Your task to perform on an android device: install app "DoorDash - Dasher" Image 0: 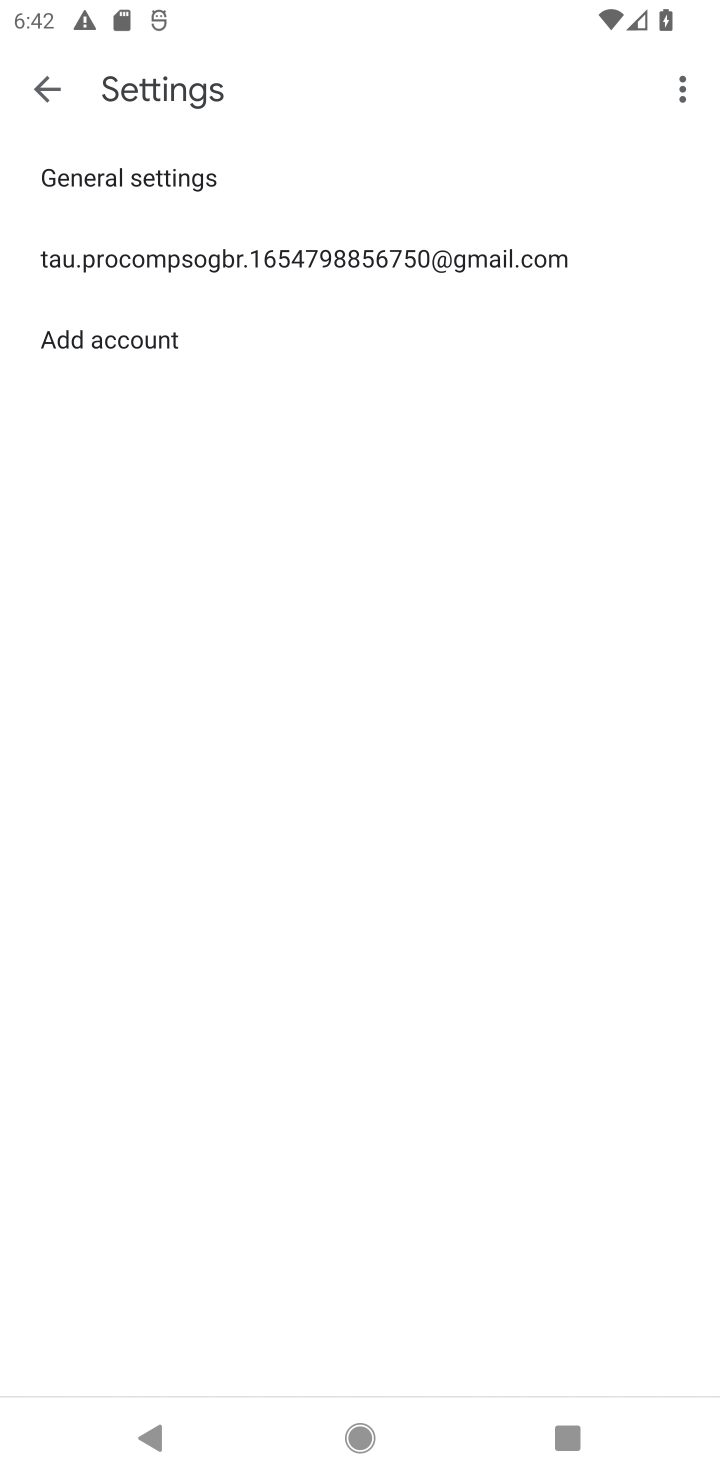
Step 0: press home button
Your task to perform on an android device: install app "DoorDash - Dasher" Image 1: 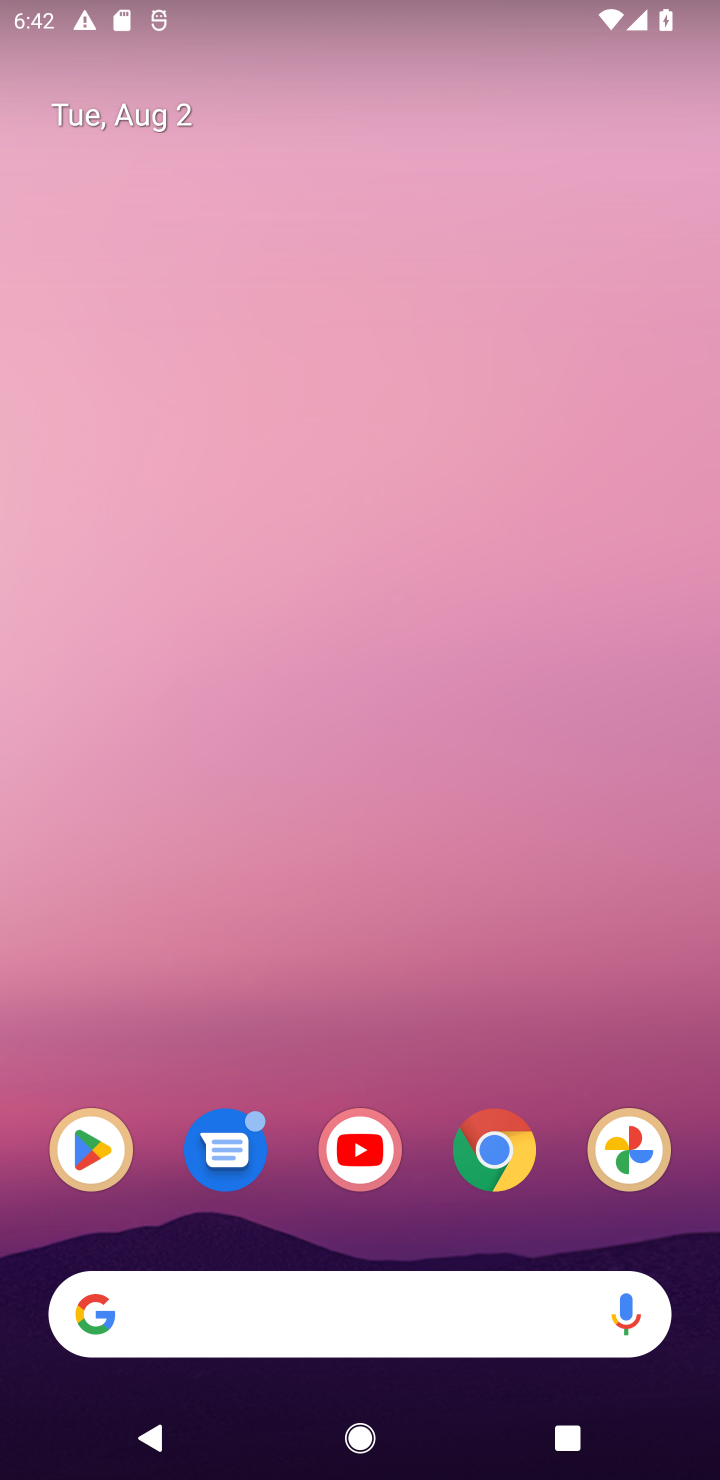
Step 1: click (76, 1174)
Your task to perform on an android device: install app "DoorDash - Dasher" Image 2: 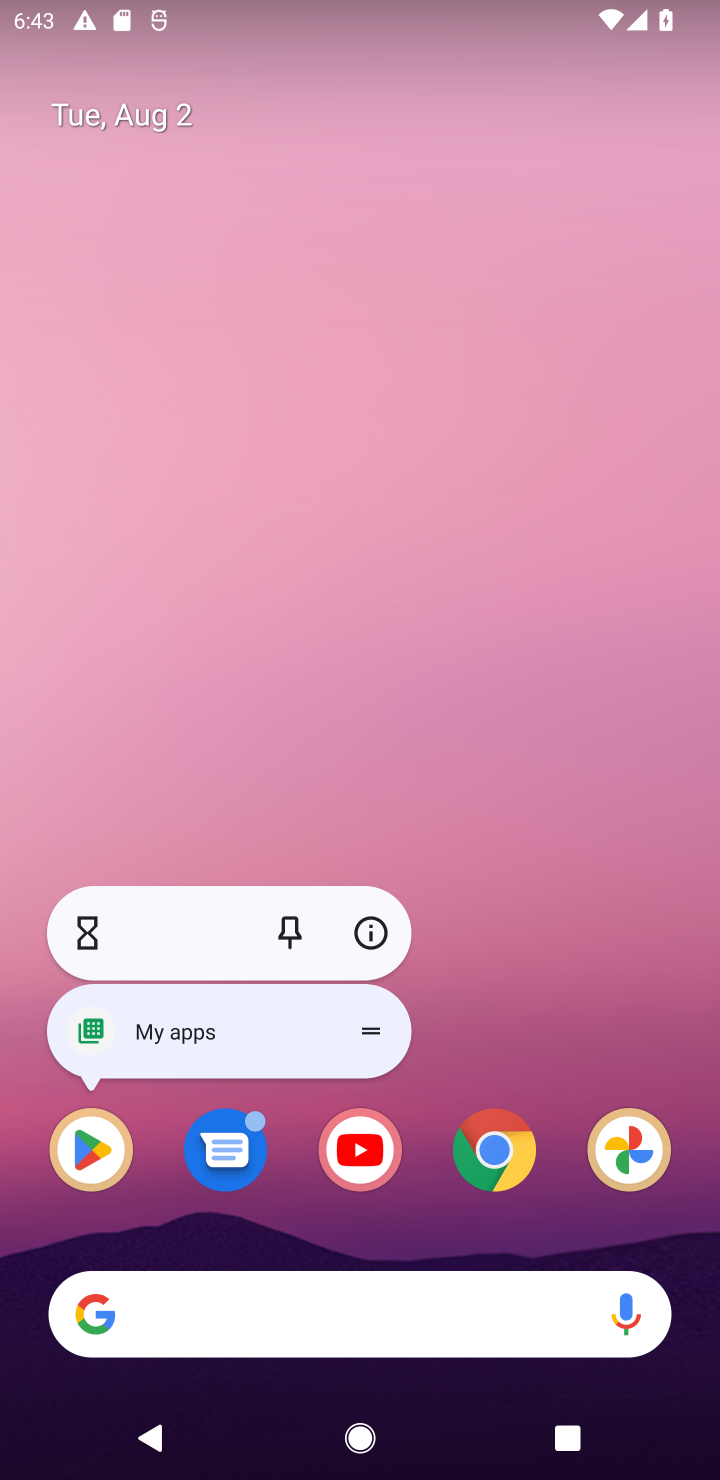
Step 2: click (76, 1174)
Your task to perform on an android device: install app "DoorDash - Dasher" Image 3: 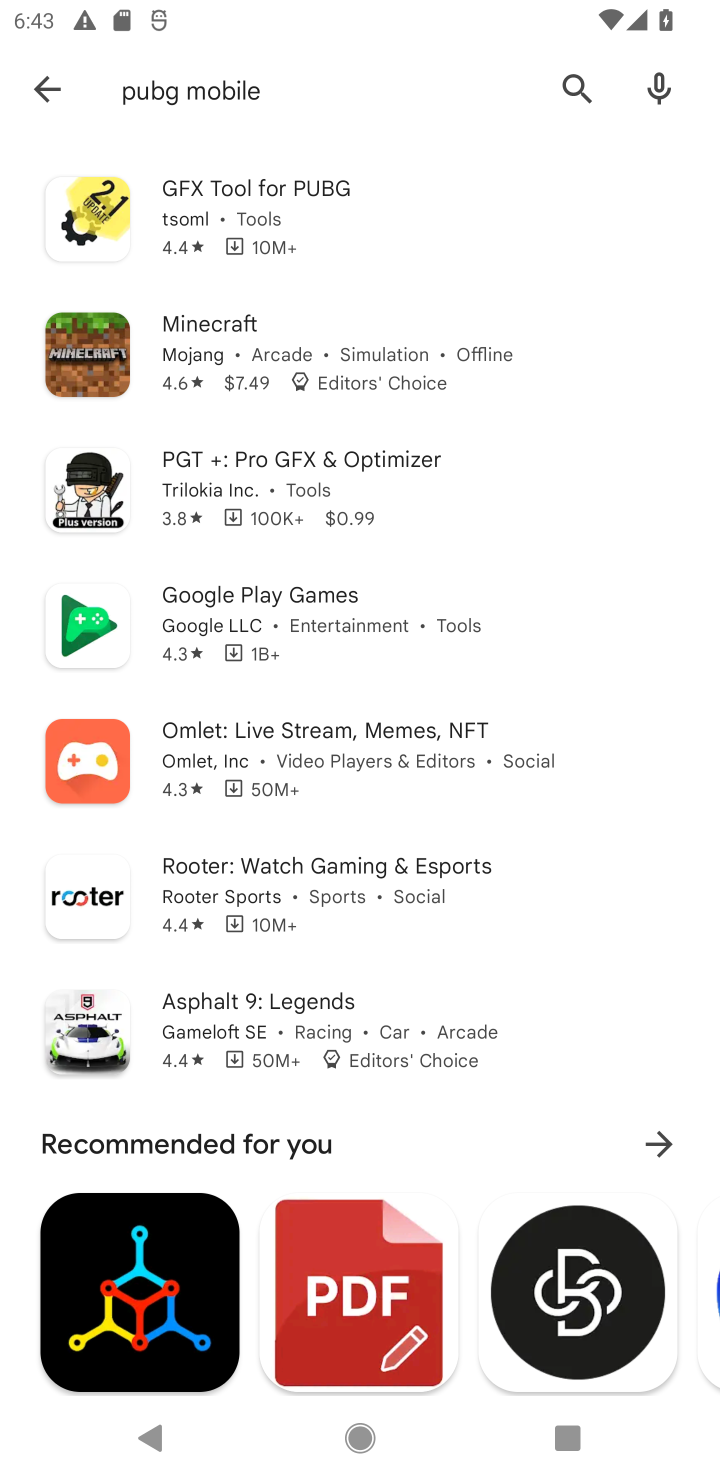
Step 3: click (101, 111)
Your task to perform on an android device: install app "DoorDash - Dasher" Image 4: 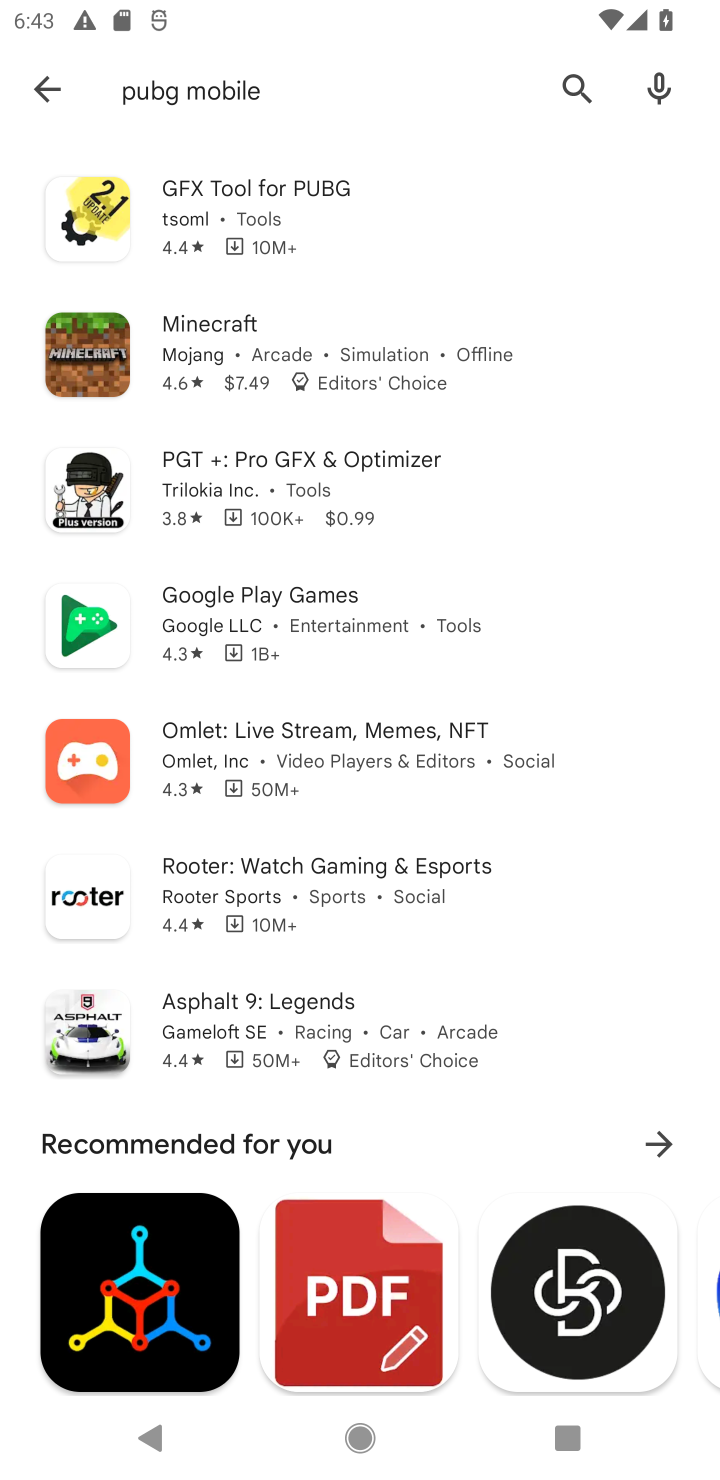
Step 4: click (59, 92)
Your task to perform on an android device: install app "DoorDash - Dasher" Image 5: 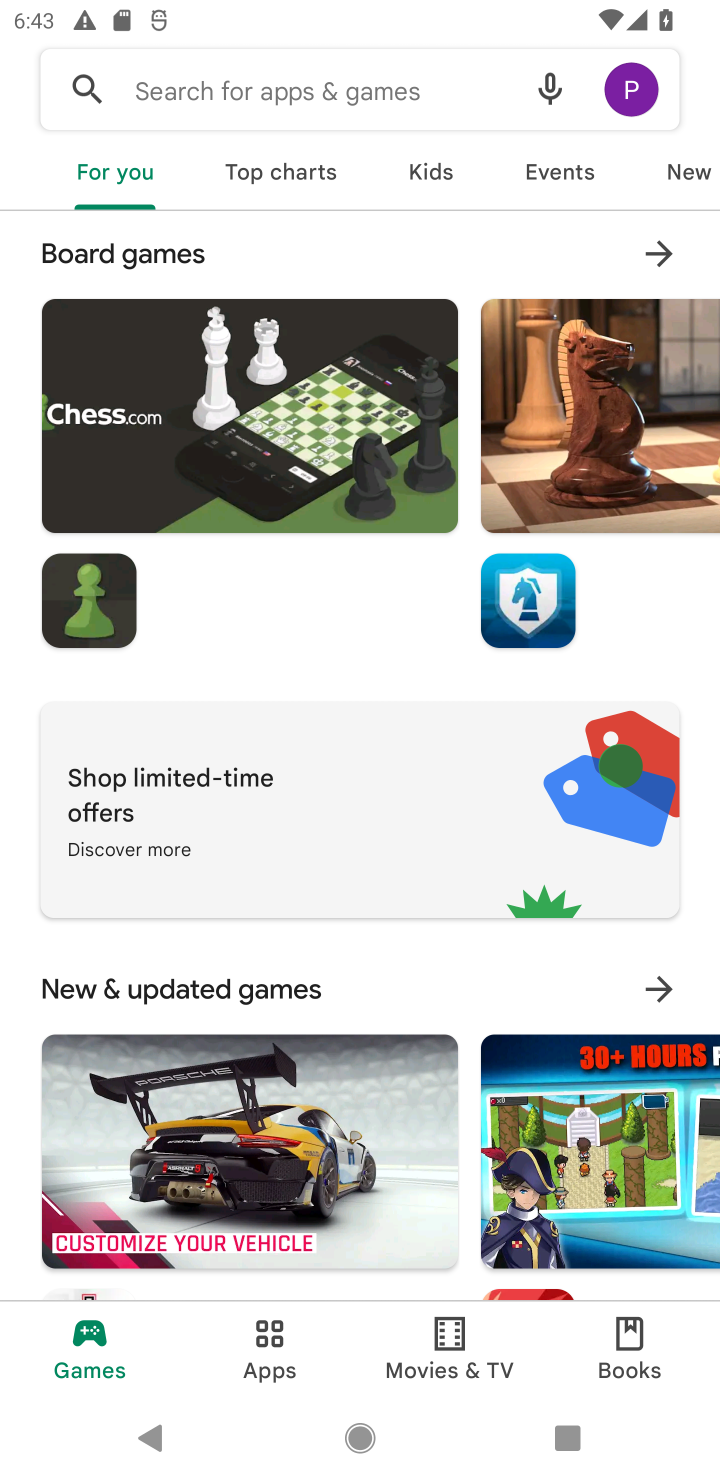
Step 5: click (142, 94)
Your task to perform on an android device: install app "DoorDash - Dasher" Image 6: 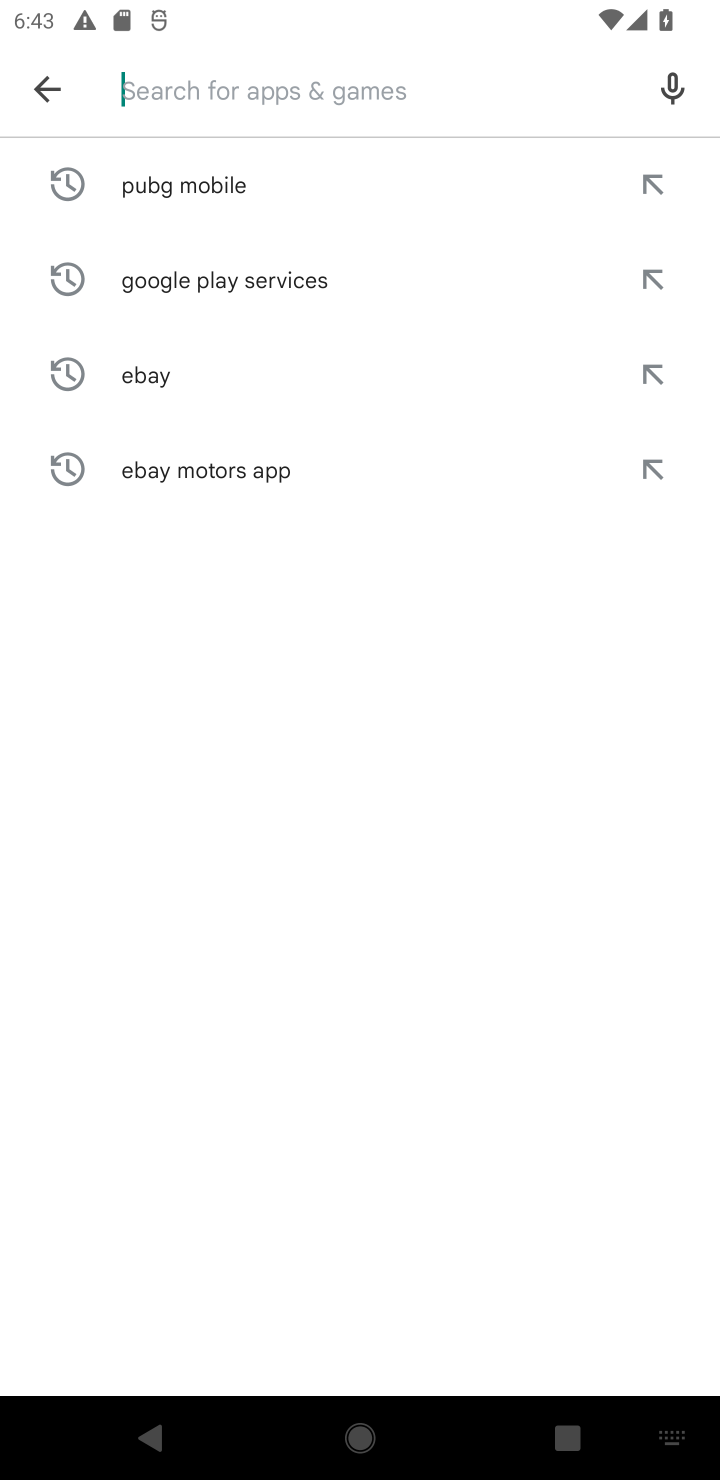
Step 6: type ""DoorDash - Dasher"
Your task to perform on an android device: install app "DoorDash - Dasher" Image 7: 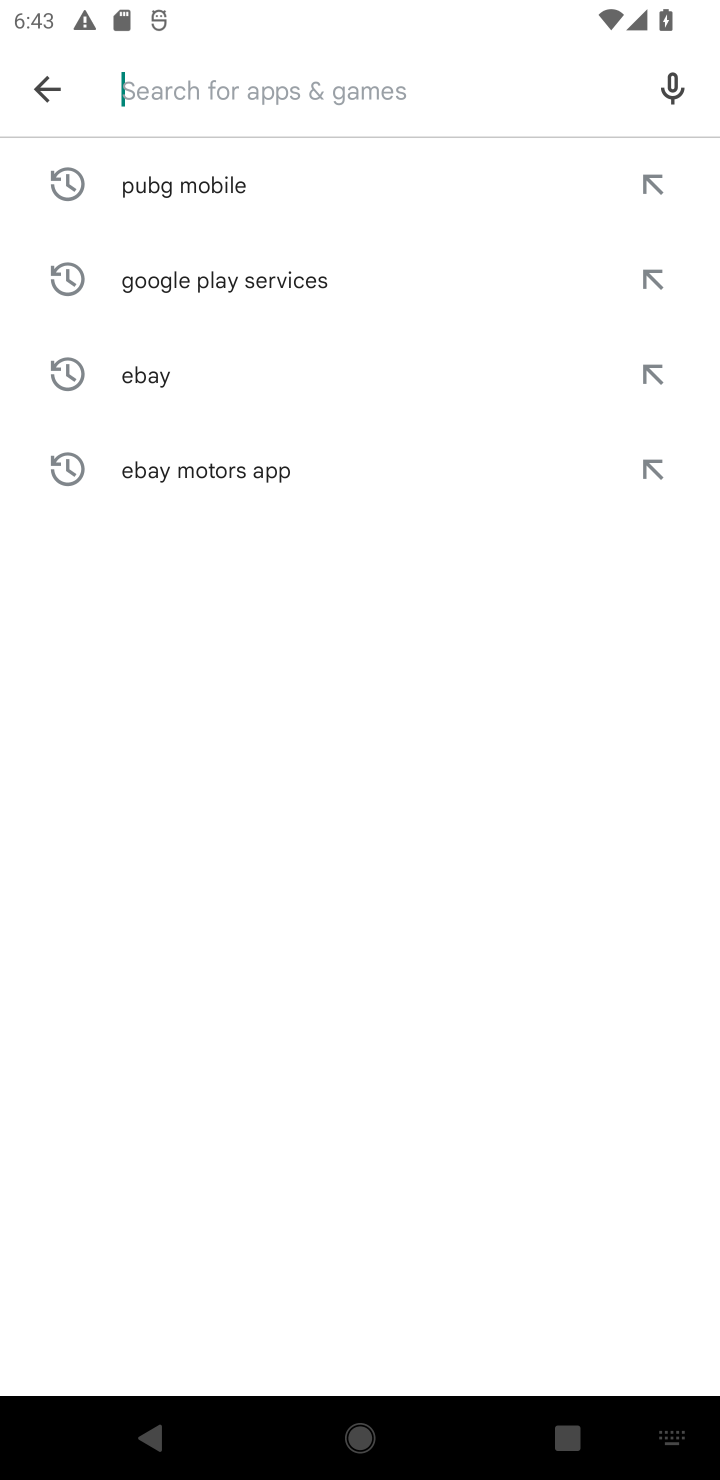
Step 7: type ""
Your task to perform on an android device: install app "DoorDash - Dasher" Image 8: 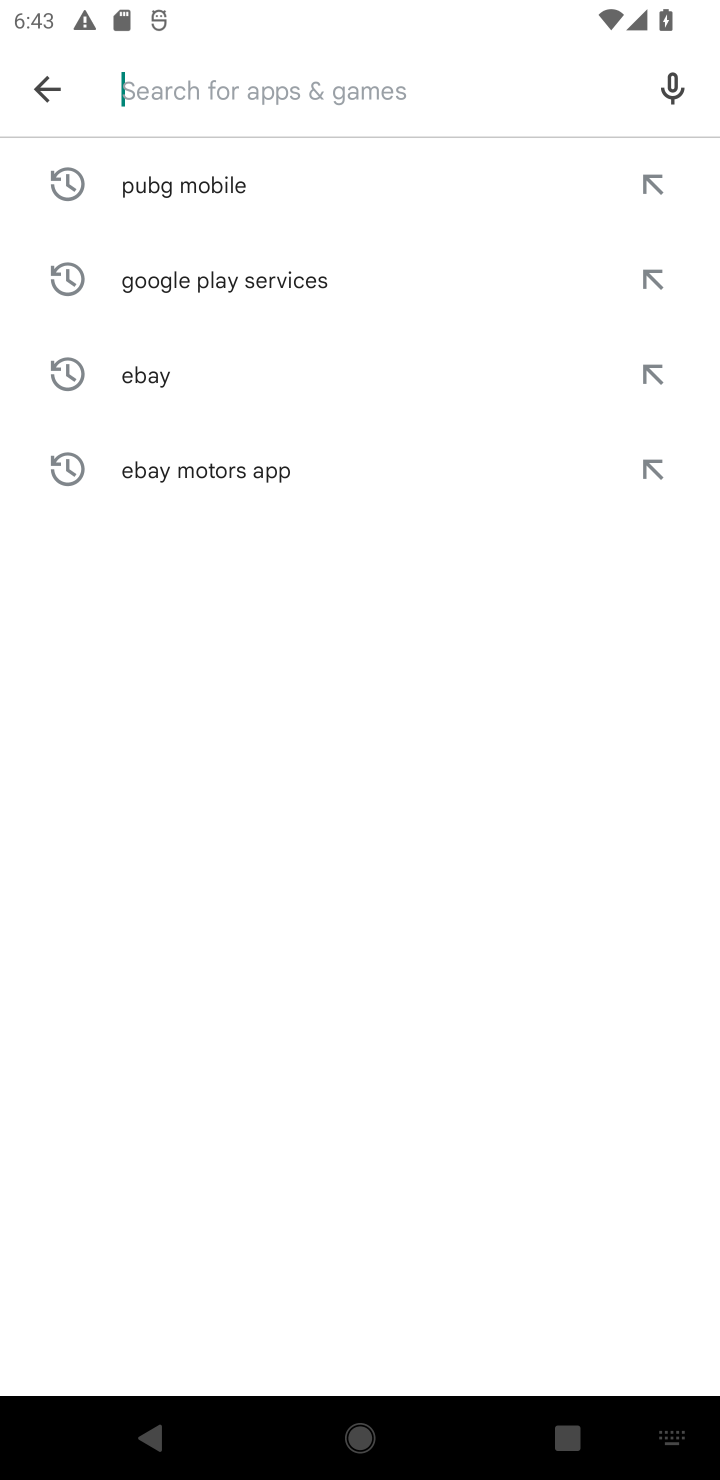
Step 8: type "DoorDash - Dashe"
Your task to perform on an android device: install app "DoorDash - Dasher" Image 9: 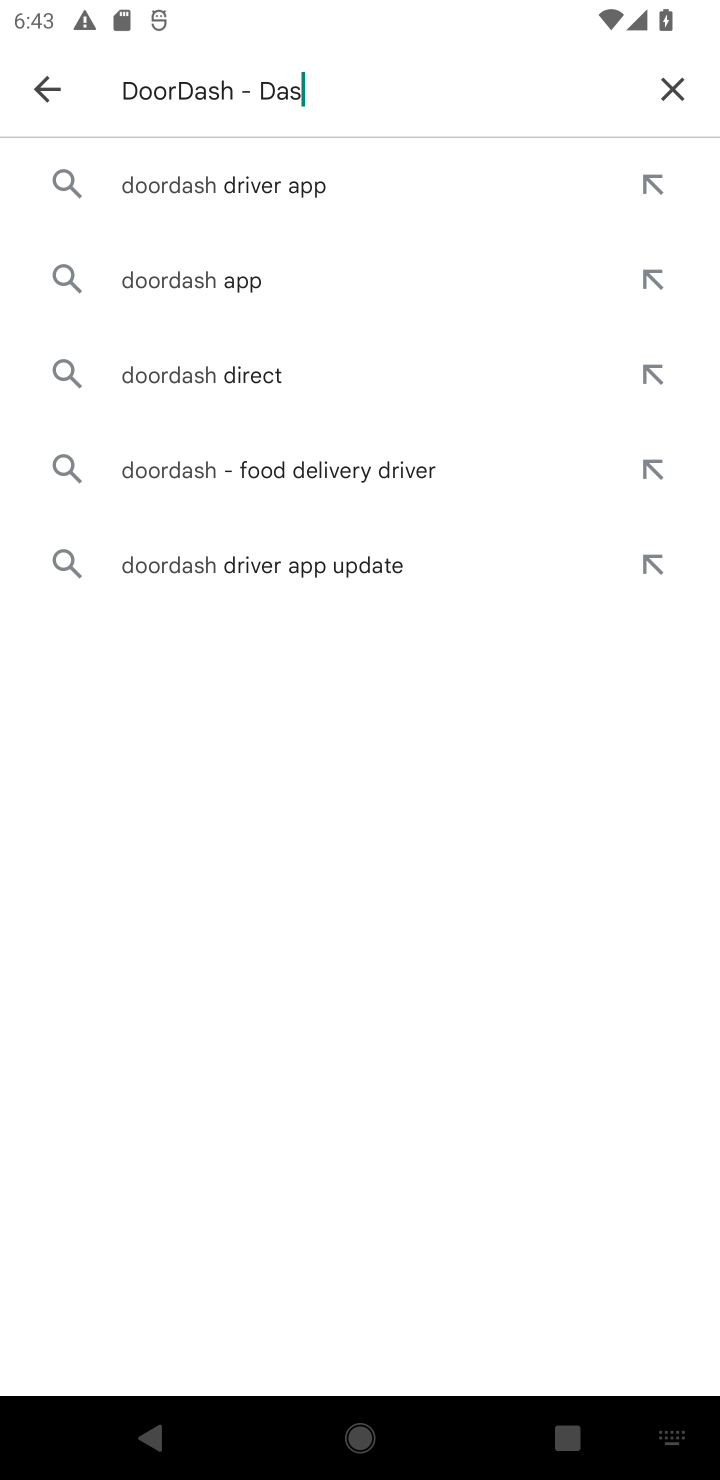
Step 9: type ""
Your task to perform on an android device: install app "DoorDash - Dasher" Image 10: 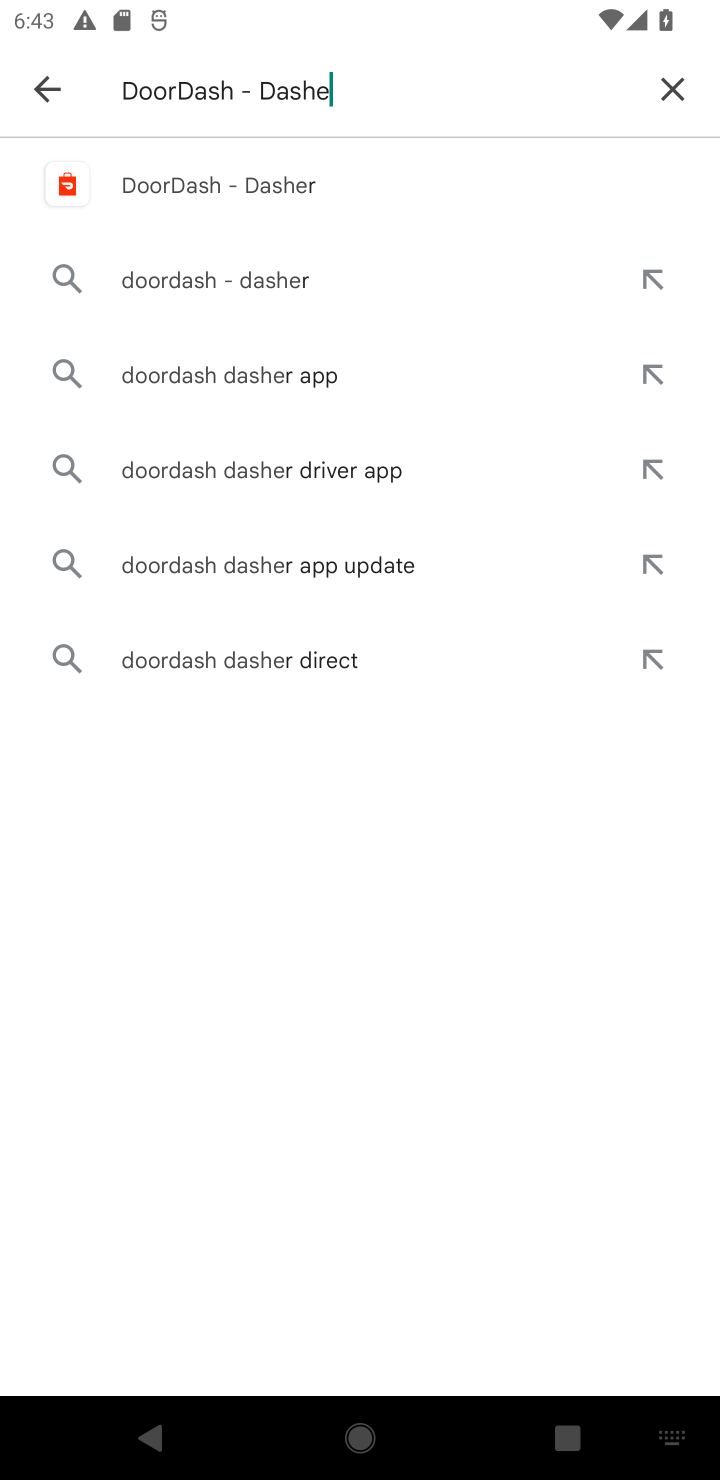
Step 10: click (197, 165)
Your task to perform on an android device: install app "DoorDash - Dasher" Image 11: 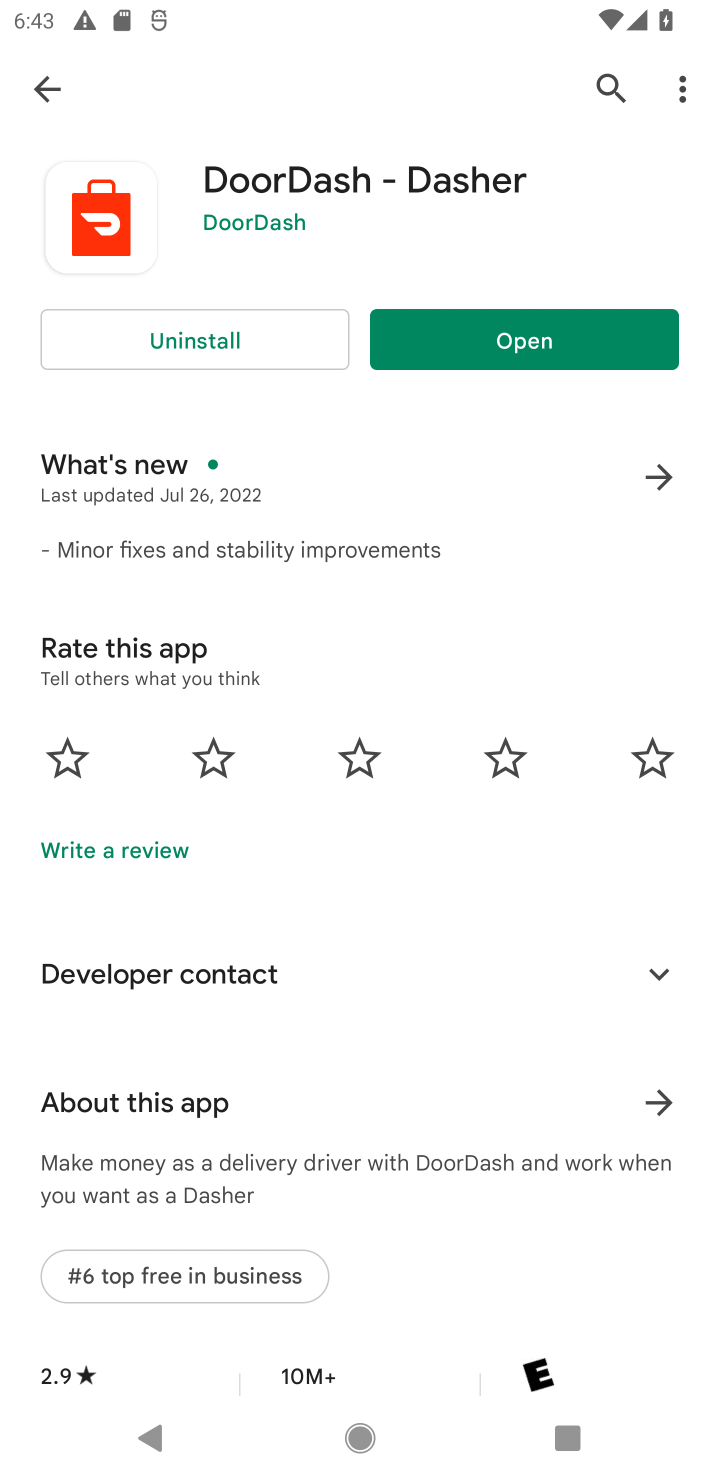
Step 11: click (440, 346)
Your task to perform on an android device: install app "DoorDash - Dasher" Image 12: 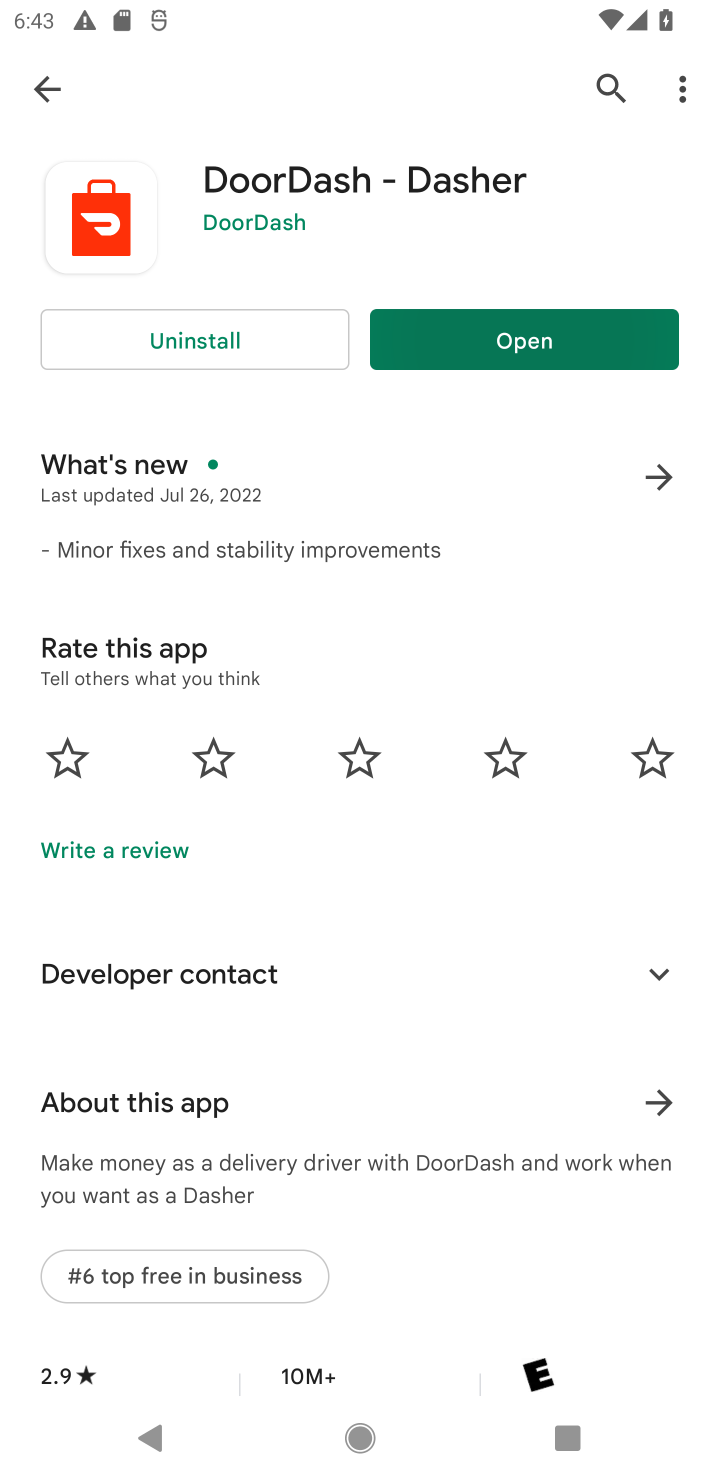
Step 12: task complete